Your task to perform on an android device: toggle pop-ups in chrome Image 0: 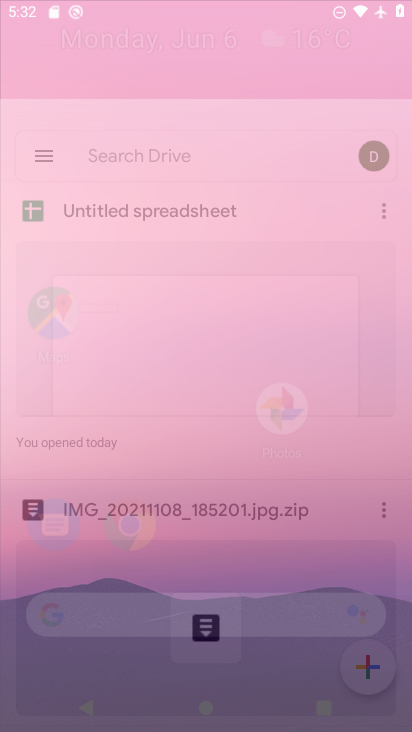
Step 0: click (183, 140)
Your task to perform on an android device: toggle pop-ups in chrome Image 1: 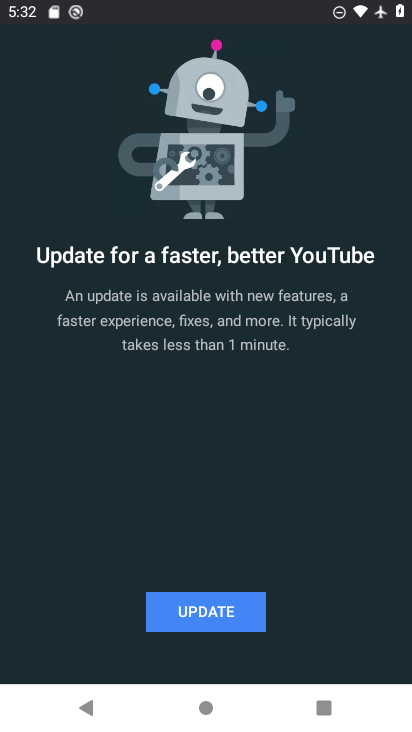
Step 1: drag from (343, 641) to (194, 110)
Your task to perform on an android device: toggle pop-ups in chrome Image 2: 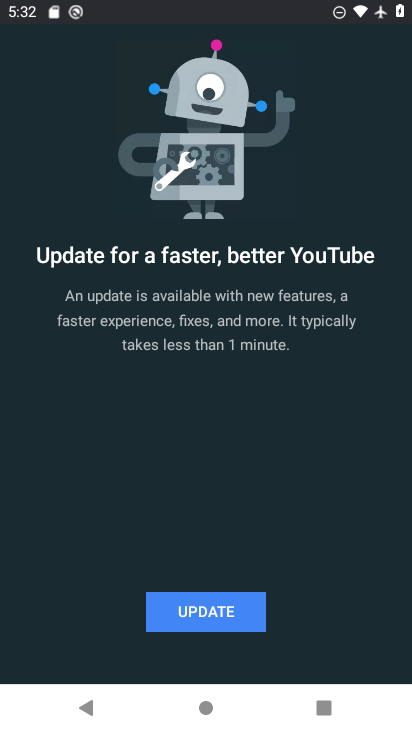
Step 2: drag from (262, 613) to (214, 159)
Your task to perform on an android device: toggle pop-ups in chrome Image 3: 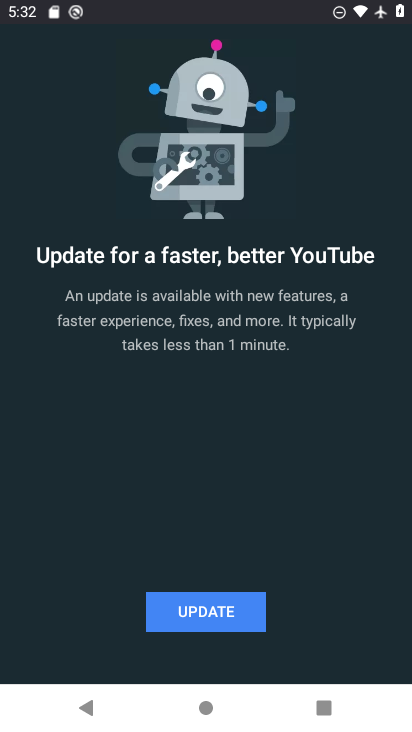
Step 3: press back button
Your task to perform on an android device: toggle pop-ups in chrome Image 4: 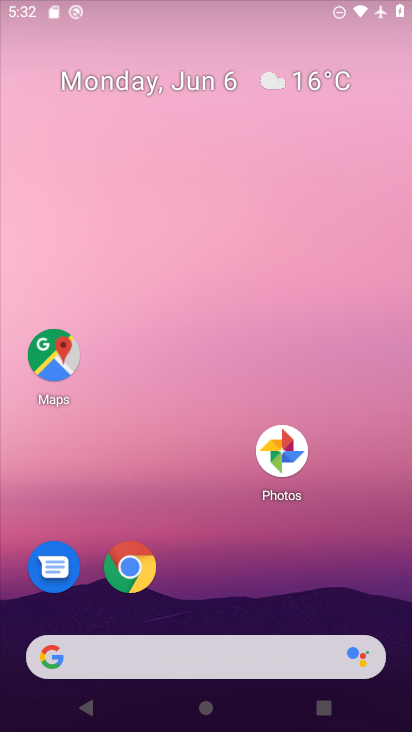
Step 4: drag from (285, 668) to (189, 101)
Your task to perform on an android device: toggle pop-ups in chrome Image 5: 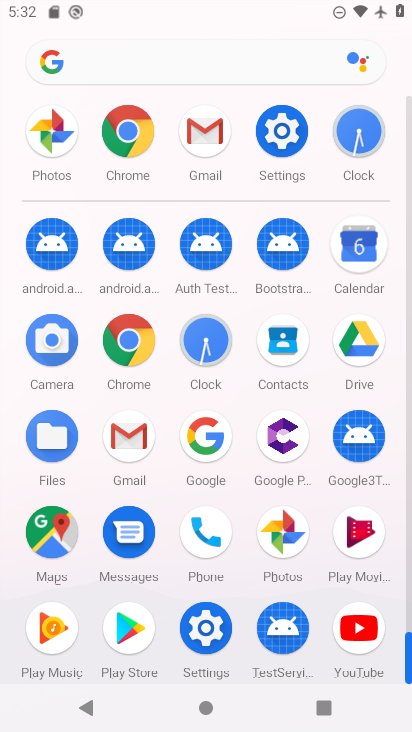
Step 5: click (124, 139)
Your task to perform on an android device: toggle pop-ups in chrome Image 6: 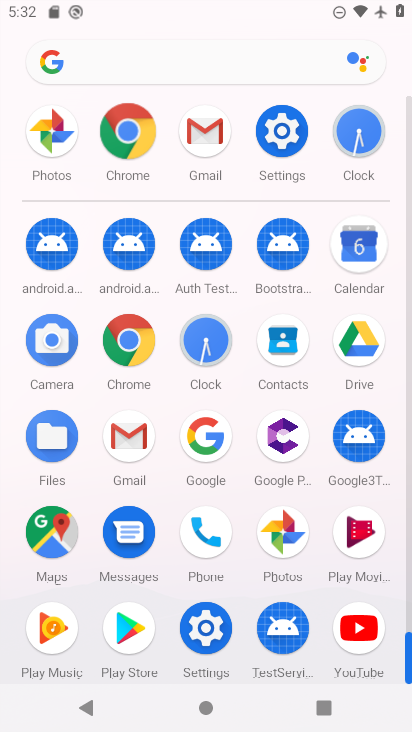
Step 6: click (128, 135)
Your task to perform on an android device: toggle pop-ups in chrome Image 7: 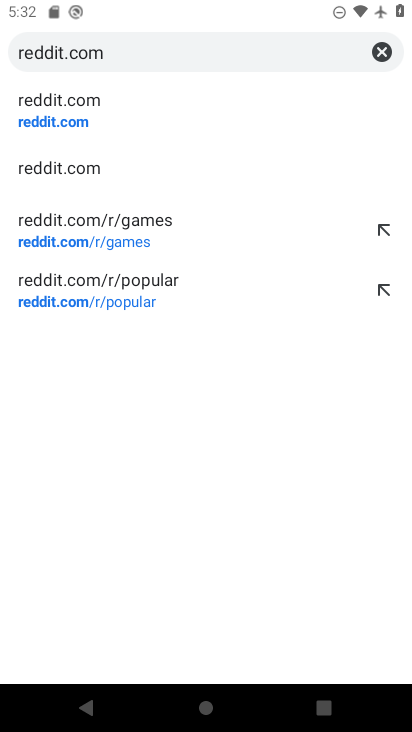
Step 7: click (376, 61)
Your task to perform on an android device: toggle pop-ups in chrome Image 8: 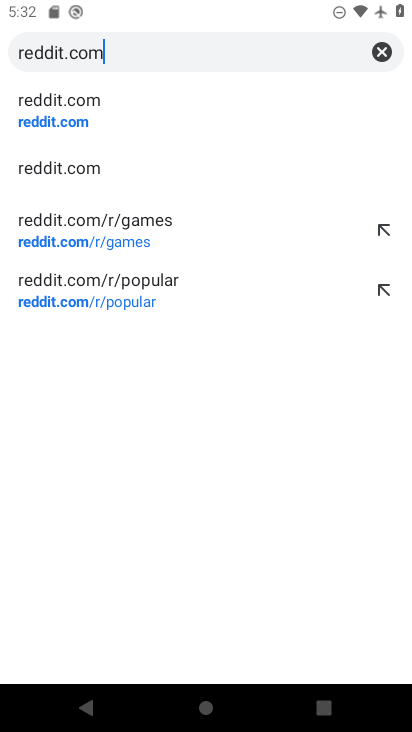
Step 8: click (376, 60)
Your task to perform on an android device: toggle pop-ups in chrome Image 9: 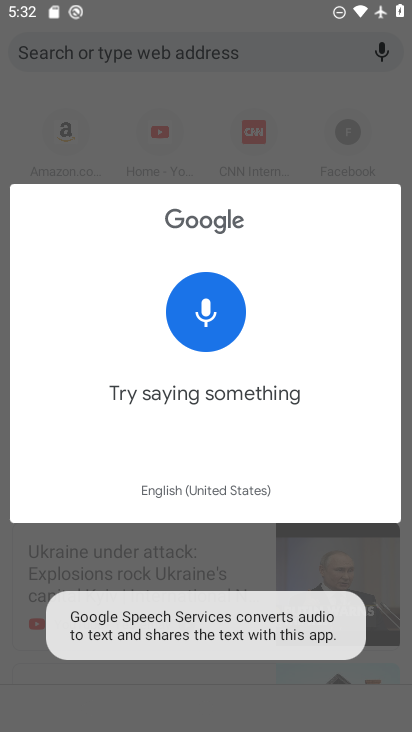
Step 9: drag from (322, 472) to (280, 17)
Your task to perform on an android device: toggle pop-ups in chrome Image 10: 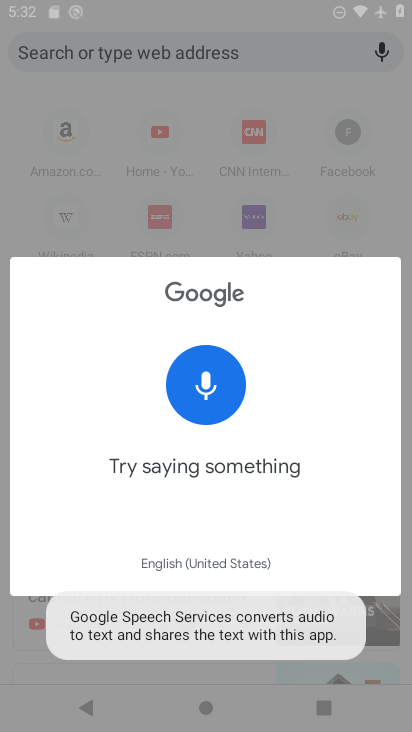
Step 10: click (304, 86)
Your task to perform on an android device: toggle pop-ups in chrome Image 11: 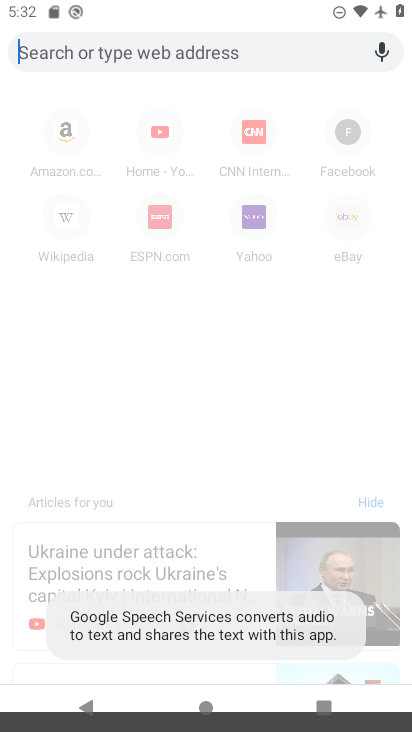
Step 11: click (305, 83)
Your task to perform on an android device: toggle pop-ups in chrome Image 12: 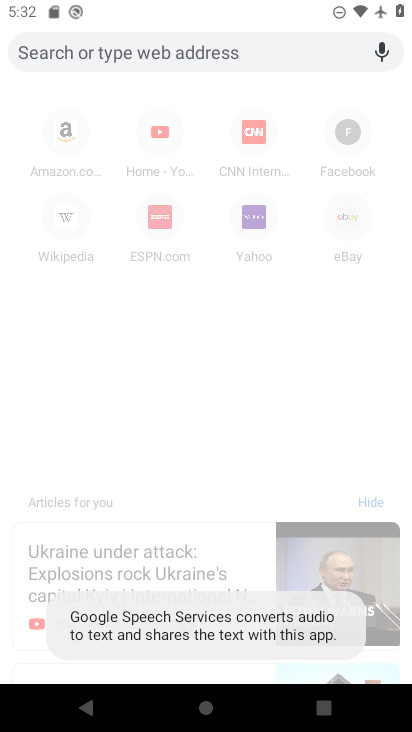
Step 12: click (305, 83)
Your task to perform on an android device: toggle pop-ups in chrome Image 13: 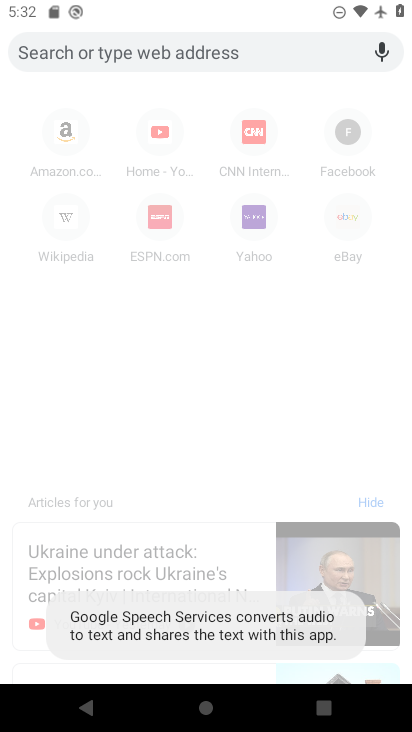
Step 13: click (306, 83)
Your task to perform on an android device: toggle pop-ups in chrome Image 14: 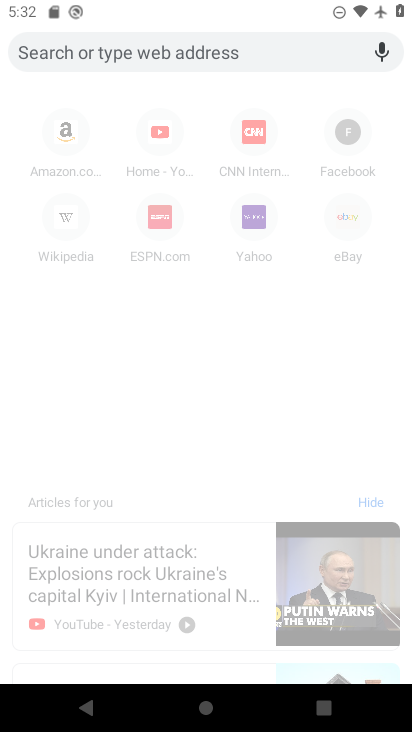
Step 14: drag from (312, 535) to (281, 65)
Your task to perform on an android device: toggle pop-ups in chrome Image 15: 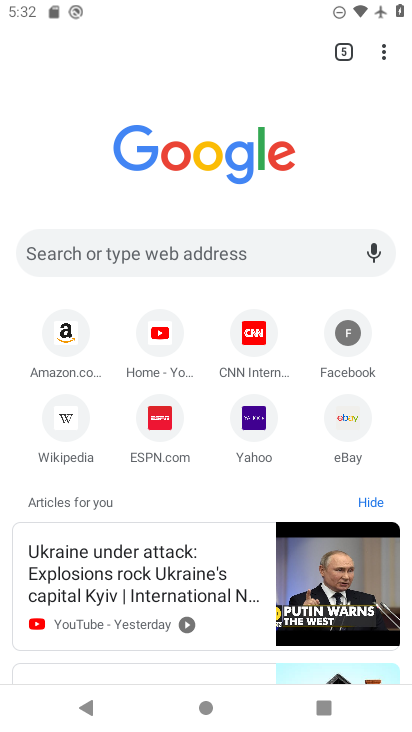
Step 15: press back button
Your task to perform on an android device: toggle pop-ups in chrome Image 16: 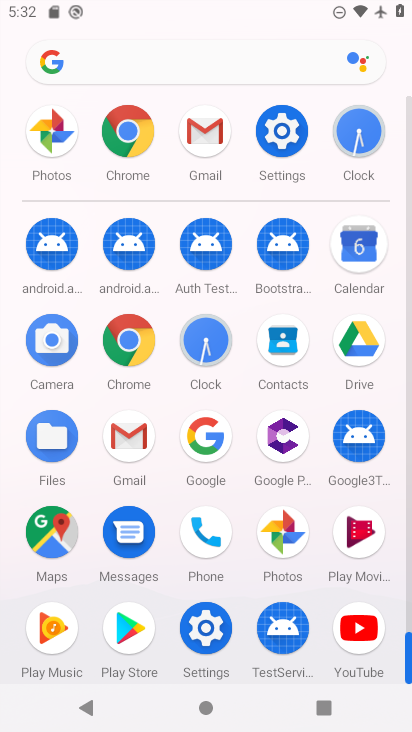
Step 16: click (140, 144)
Your task to perform on an android device: toggle pop-ups in chrome Image 17: 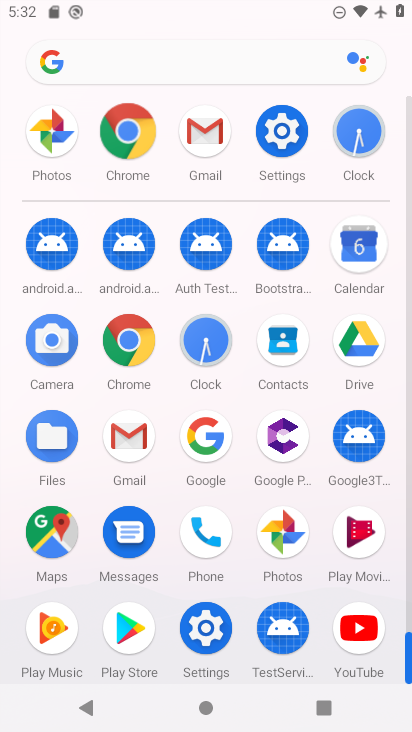
Step 17: click (139, 143)
Your task to perform on an android device: toggle pop-ups in chrome Image 18: 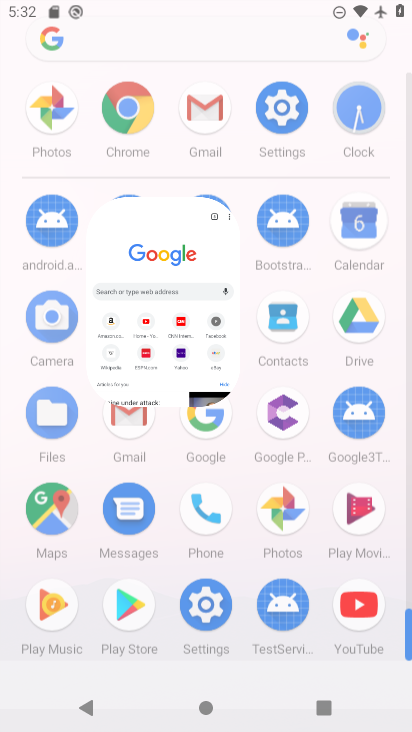
Step 18: click (139, 143)
Your task to perform on an android device: toggle pop-ups in chrome Image 19: 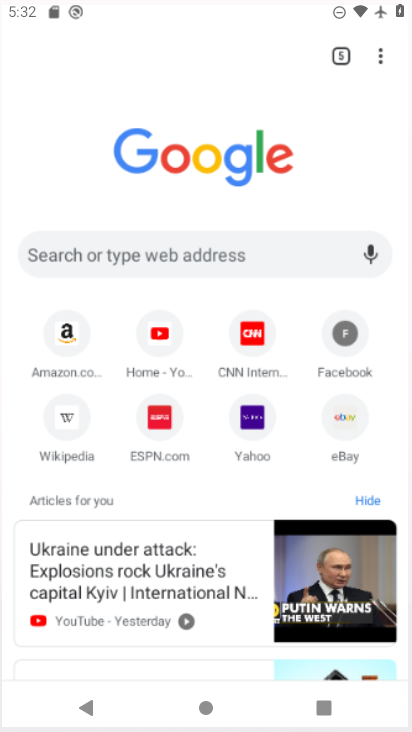
Step 19: click (140, 142)
Your task to perform on an android device: toggle pop-ups in chrome Image 20: 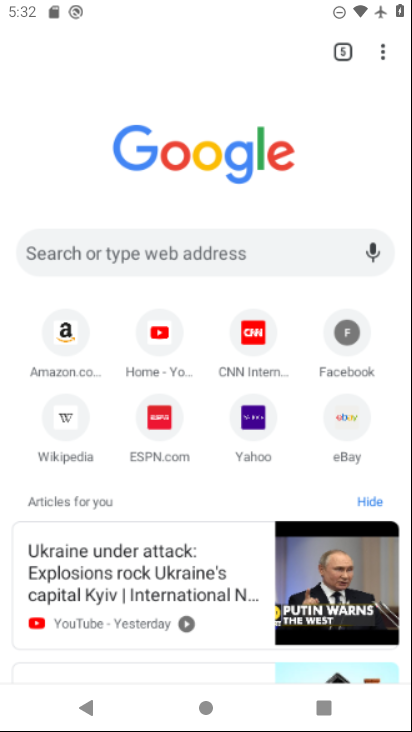
Step 20: click (141, 141)
Your task to perform on an android device: toggle pop-ups in chrome Image 21: 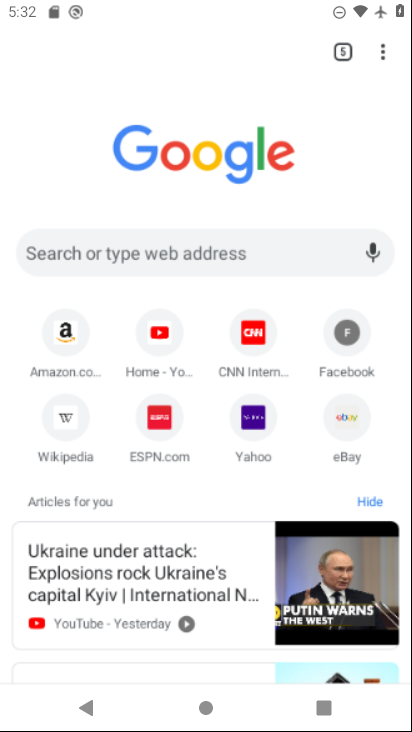
Step 21: click (141, 141)
Your task to perform on an android device: toggle pop-ups in chrome Image 22: 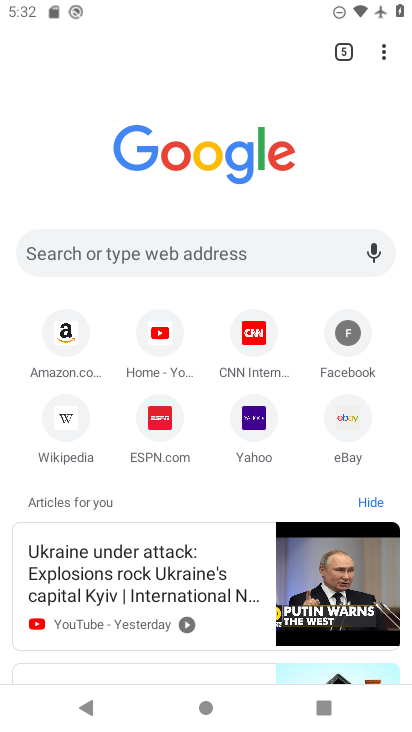
Step 22: drag from (391, 47) to (183, 442)
Your task to perform on an android device: toggle pop-ups in chrome Image 23: 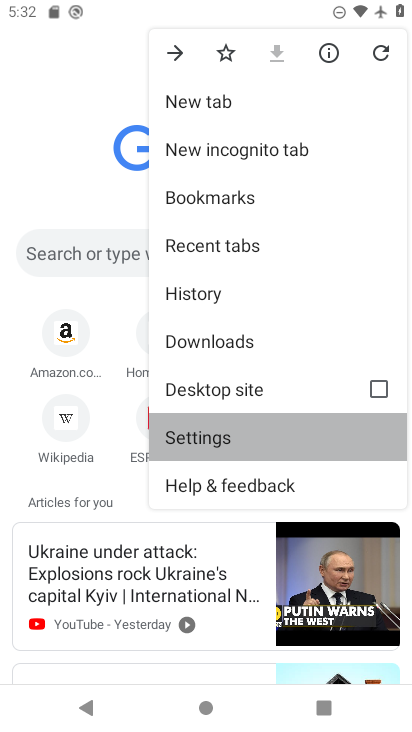
Step 23: click (182, 442)
Your task to perform on an android device: toggle pop-ups in chrome Image 24: 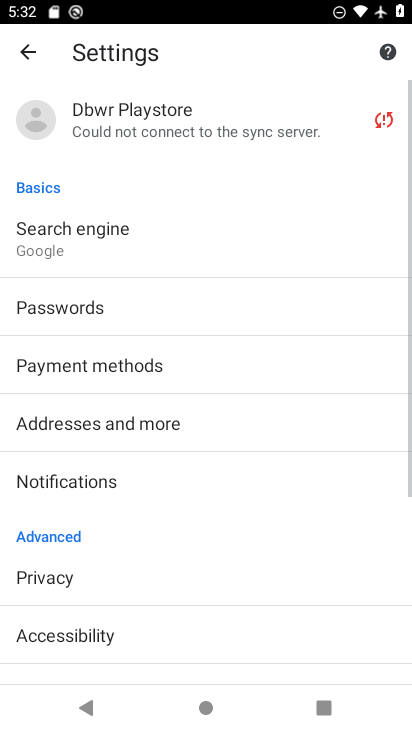
Step 24: drag from (53, 522) to (70, 300)
Your task to perform on an android device: toggle pop-ups in chrome Image 25: 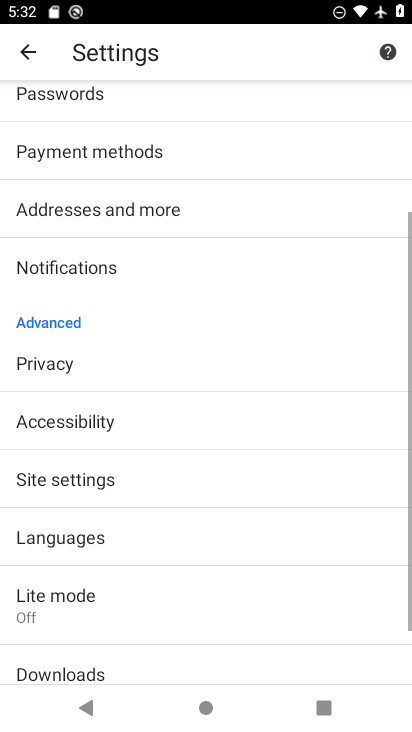
Step 25: drag from (100, 488) to (100, 270)
Your task to perform on an android device: toggle pop-ups in chrome Image 26: 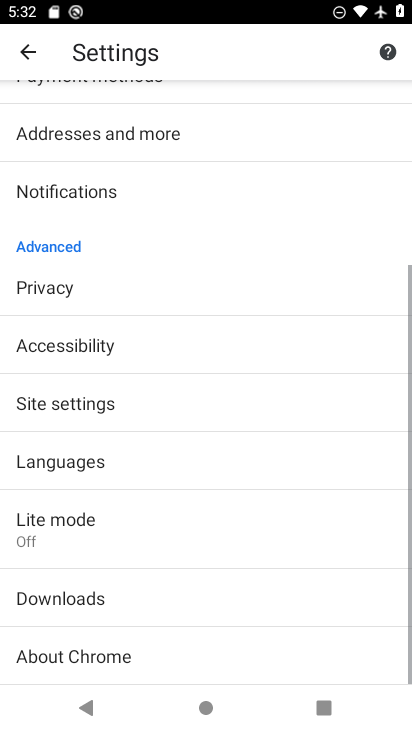
Step 26: click (70, 416)
Your task to perform on an android device: toggle pop-ups in chrome Image 27: 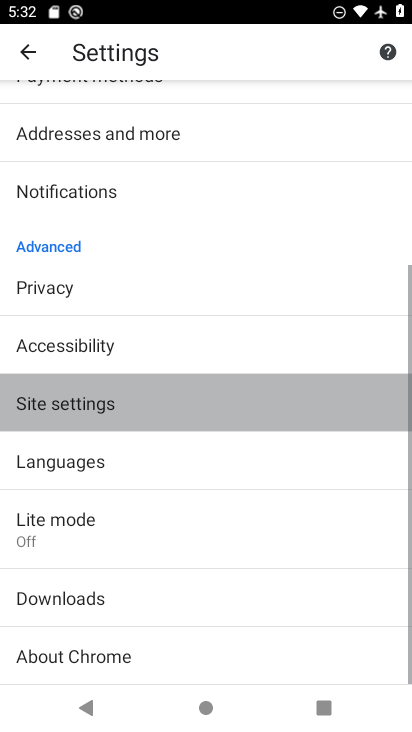
Step 27: click (66, 413)
Your task to perform on an android device: toggle pop-ups in chrome Image 28: 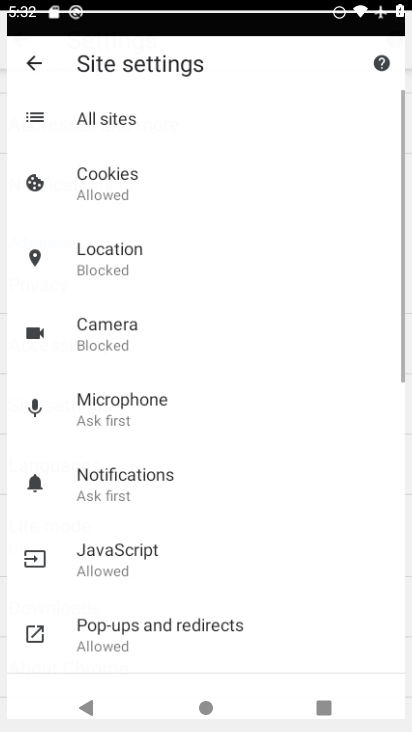
Step 28: click (75, 401)
Your task to perform on an android device: toggle pop-ups in chrome Image 29: 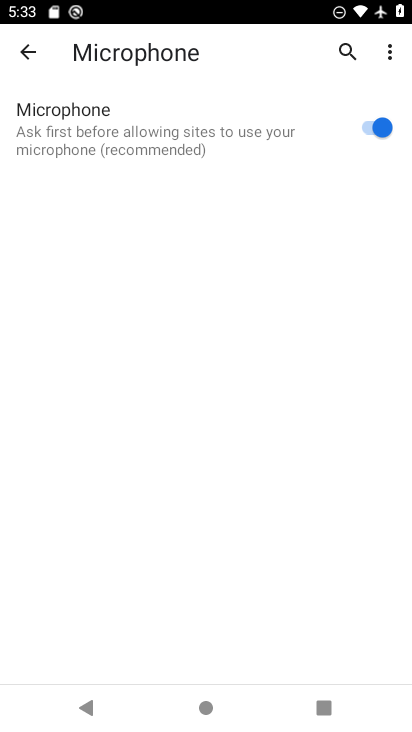
Step 29: click (27, 56)
Your task to perform on an android device: toggle pop-ups in chrome Image 30: 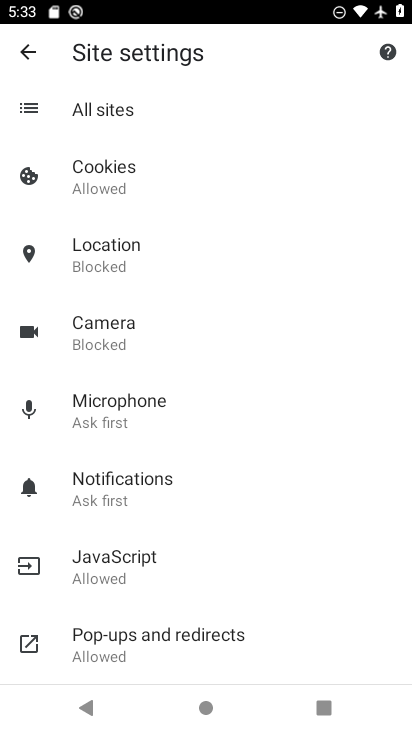
Step 30: click (115, 624)
Your task to perform on an android device: toggle pop-ups in chrome Image 31: 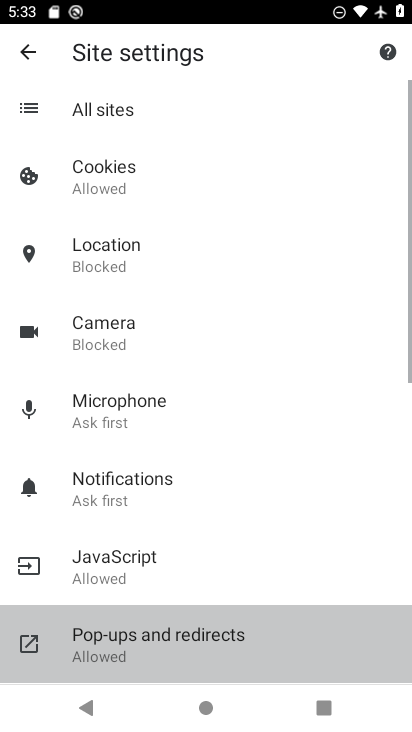
Step 31: click (112, 621)
Your task to perform on an android device: toggle pop-ups in chrome Image 32: 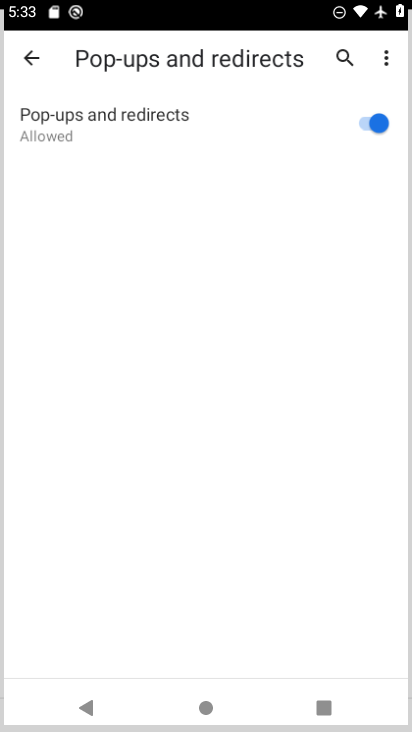
Step 32: click (112, 621)
Your task to perform on an android device: toggle pop-ups in chrome Image 33: 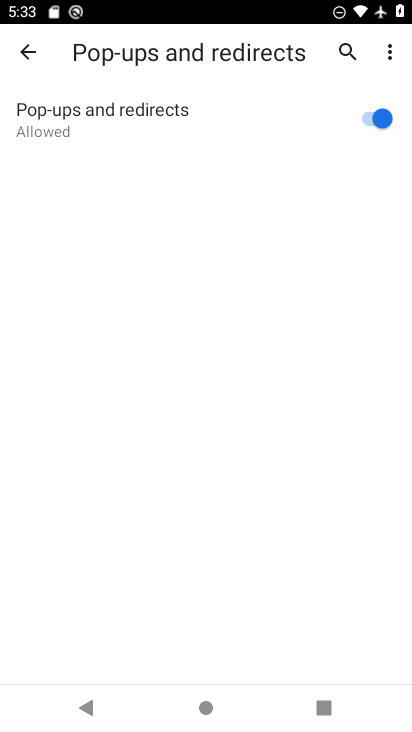
Step 33: click (112, 621)
Your task to perform on an android device: toggle pop-ups in chrome Image 34: 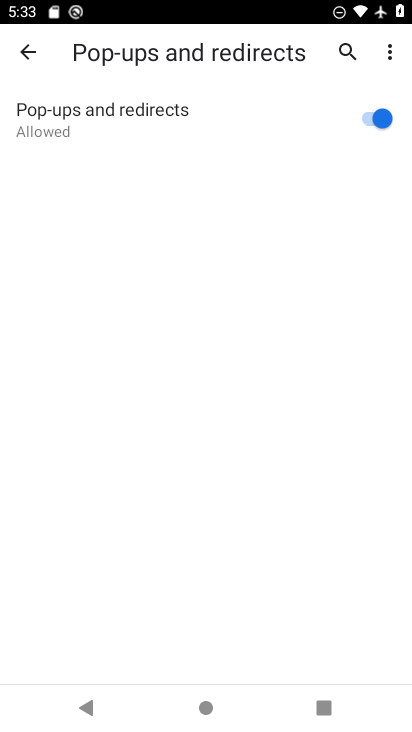
Step 34: click (371, 117)
Your task to perform on an android device: toggle pop-ups in chrome Image 35: 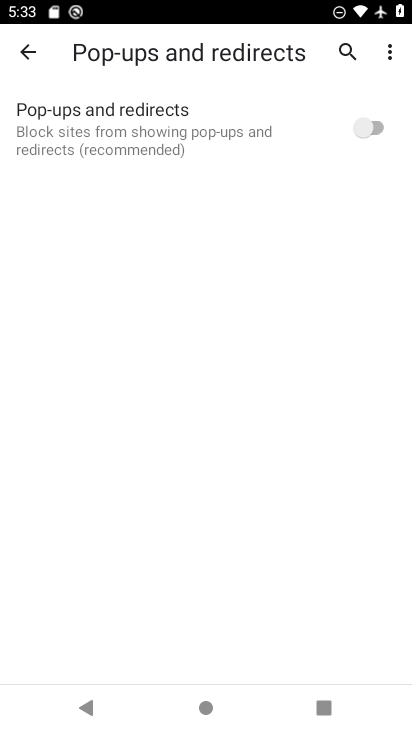
Step 35: task complete